Your task to perform on an android device: Open Android settings Image 0: 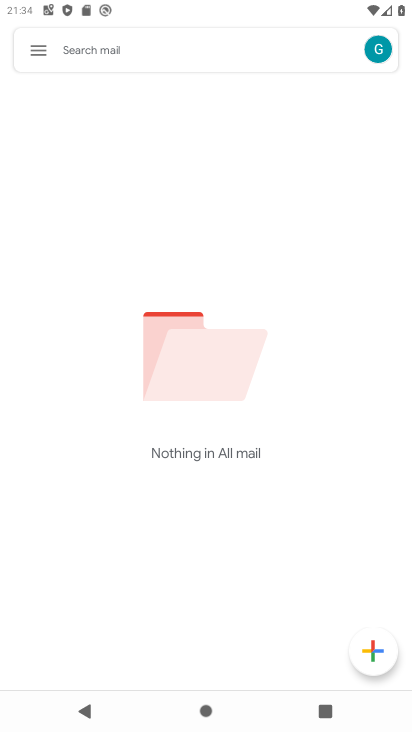
Step 0: press home button
Your task to perform on an android device: Open Android settings Image 1: 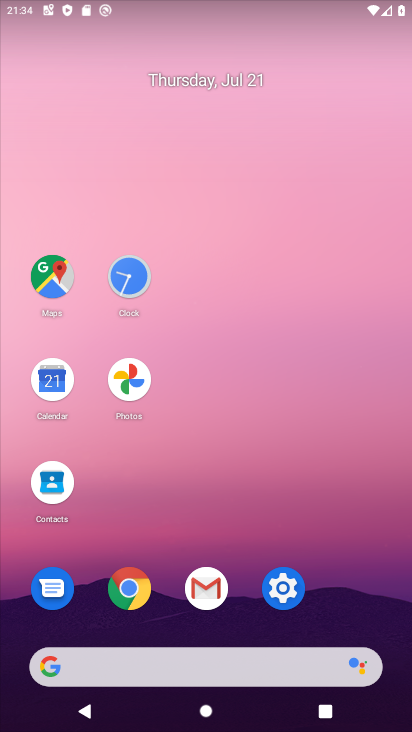
Step 1: click (283, 593)
Your task to perform on an android device: Open Android settings Image 2: 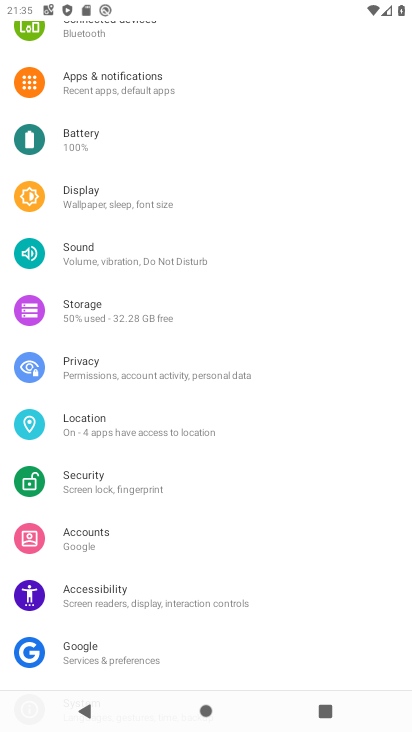
Step 2: task complete